Your task to perform on an android device: Search for seafood restaurants on Google Maps Image 0: 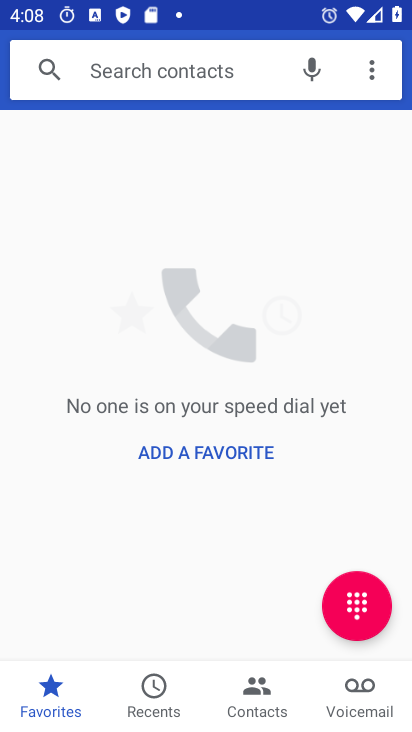
Step 0: press home button
Your task to perform on an android device: Search for seafood restaurants on Google Maps Image 1: 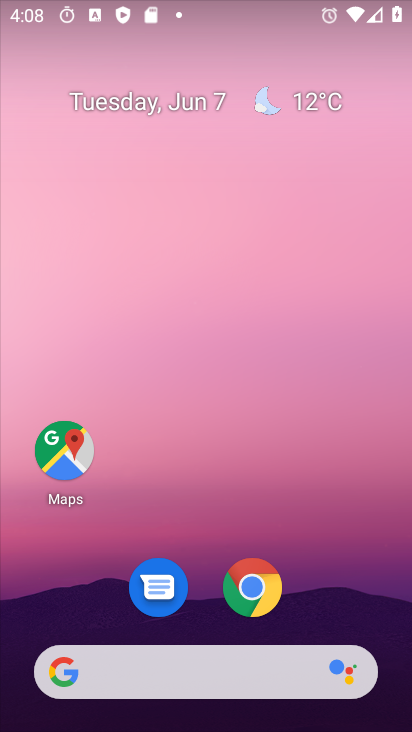
Step 1: drag from (305, 361) to (340, 129)
Your task to perform on an android device: Search for seafood restaurants on Google Maps Image 2: 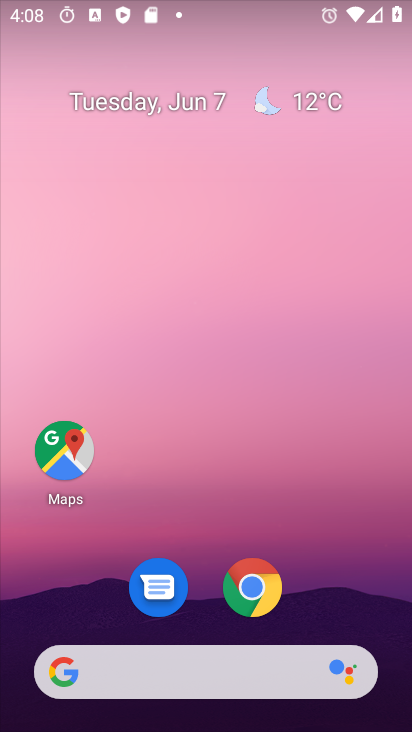
Step 2: click (245, 657)
Your task to perform on an android device: Search for seafood restaurants on Google Maps Image 3: 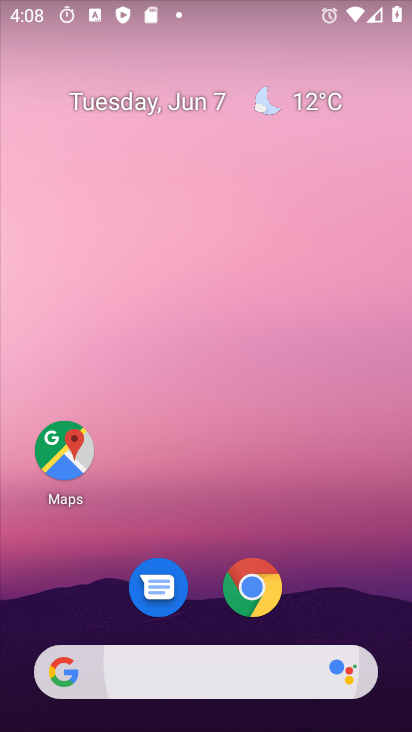
Step 3: drag from (237, 642) to (305, 0)
Your task to perform on an android device: Search for seafood restaurants on Google Maps Image 4: 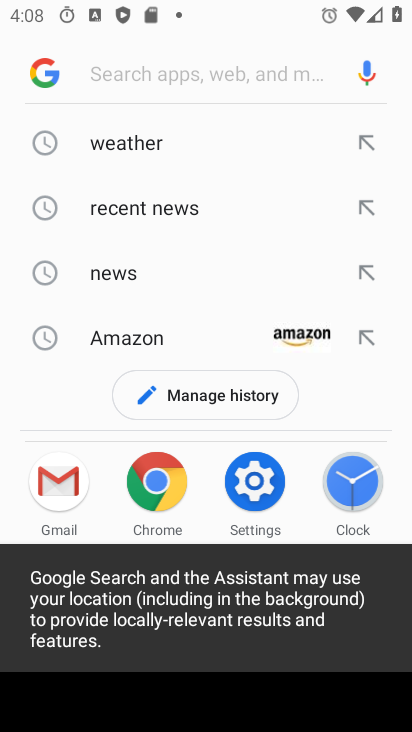
Step 4: press home button
Your task to perform on an android device: Search for seafood restaurants on Google Maps Image 5: 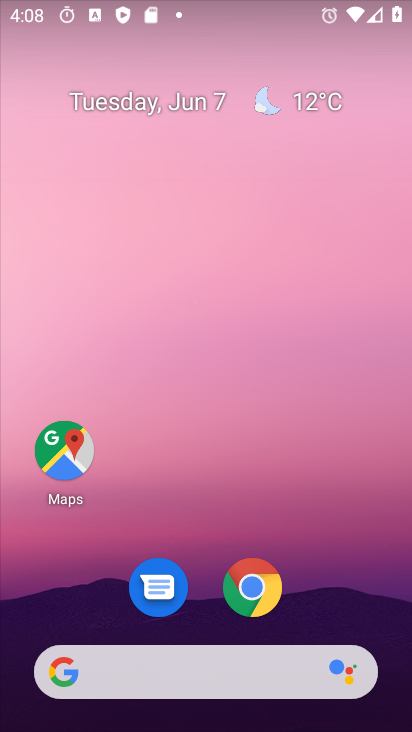
Step 5: drag from (183, 624) to (190, 11)
Your task to perform on an android device: Search for seafood restaurants on Google Maps Image 6: 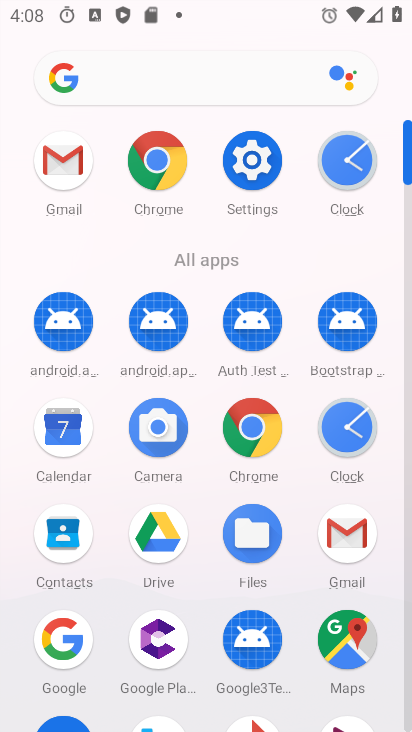
Step 6: click (361, 640)
Your task to perform on an android device: Search for seafood restaurants on Google Maps Image 7: 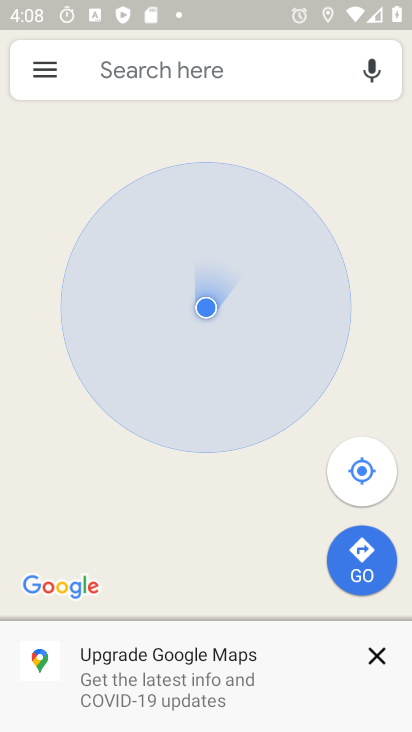
Step 7: click (196, 75)
Your task to perform on an android device: Search for seafood restaurants on Google Maps Image 8: 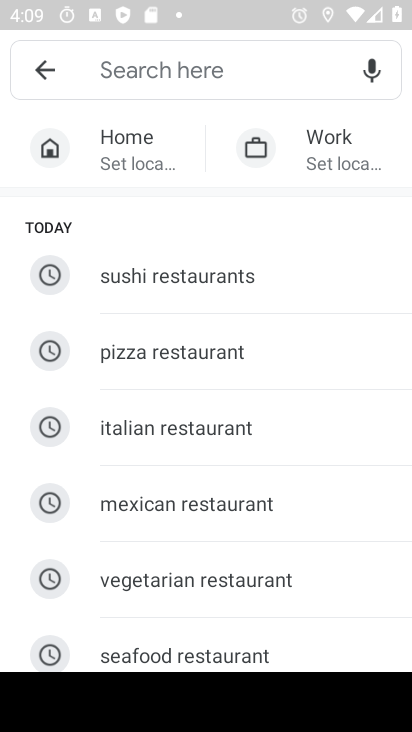
Step 8: click (211, 650)
Your task to perform on an android device: Search for seafood restaurants on Google Maps Image 9: 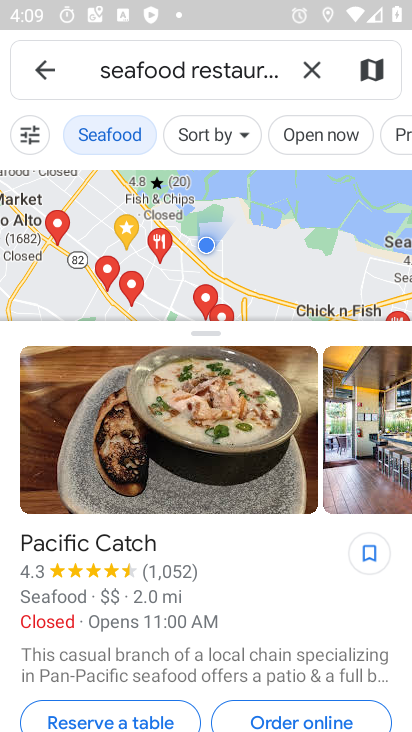
Step 9: task complete